Your task to perform on an android device: Clear the cart on bestbuy.com. Add "corsair k70" to the cart on bestbuy.com, then select checkout. Image 0: 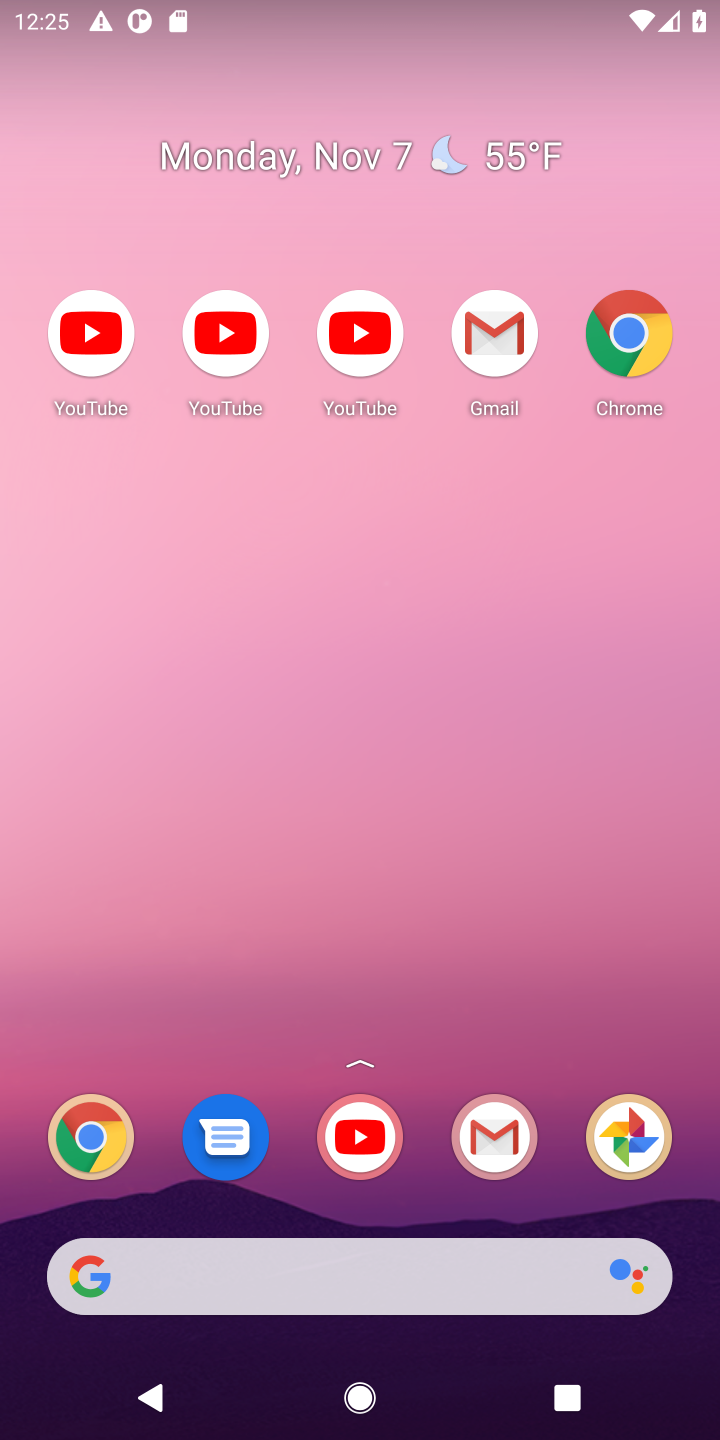
Step 0: drag from (104, 464) to (0, 203)
Your task to perform on an android device: Clear the cart on bestbuy.com. Add "corsair k70" to the cart on bestbuy.com, then select checkout. Image 1: 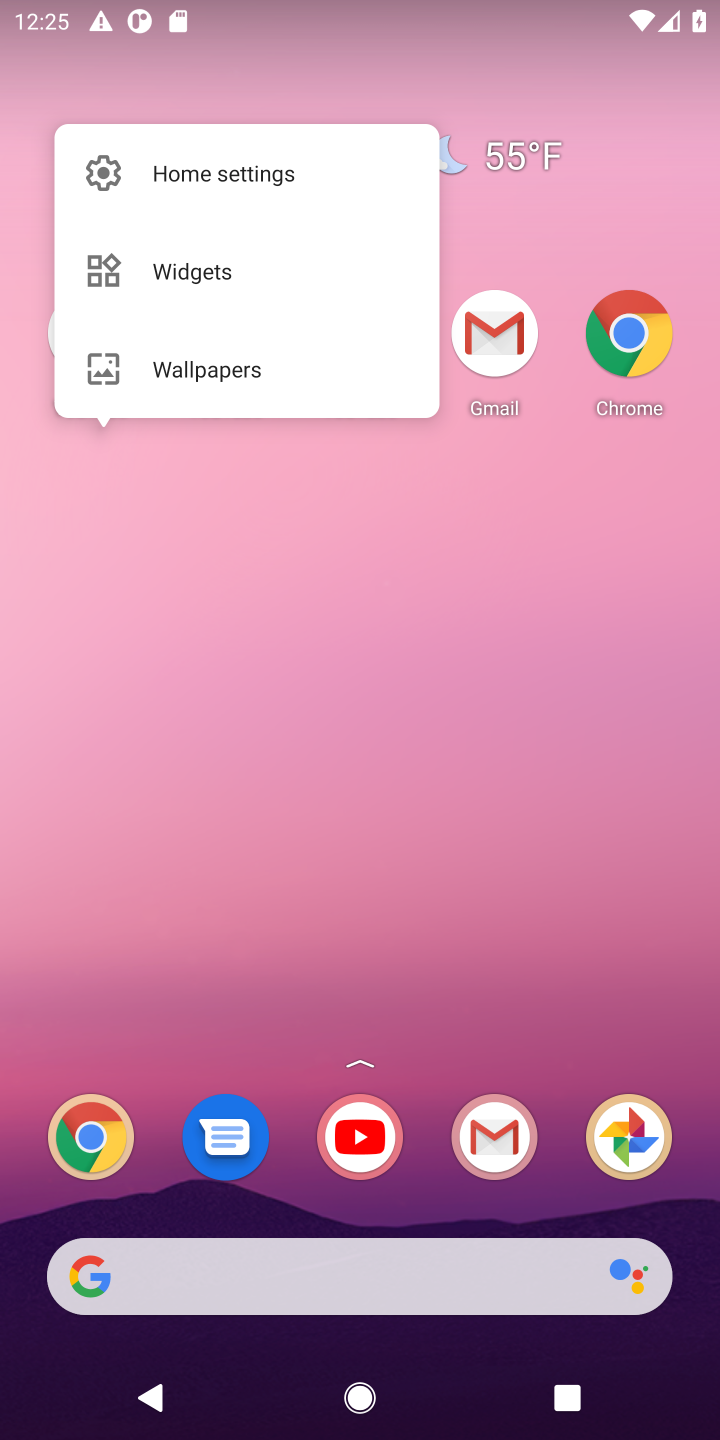
Step 1: click (436, 1188)
Your task to perform on an android device: Clear the cart on bestbuy.com. Add "corsair k70" to the cart on bestbuy.com, then select checkout. Image 2: 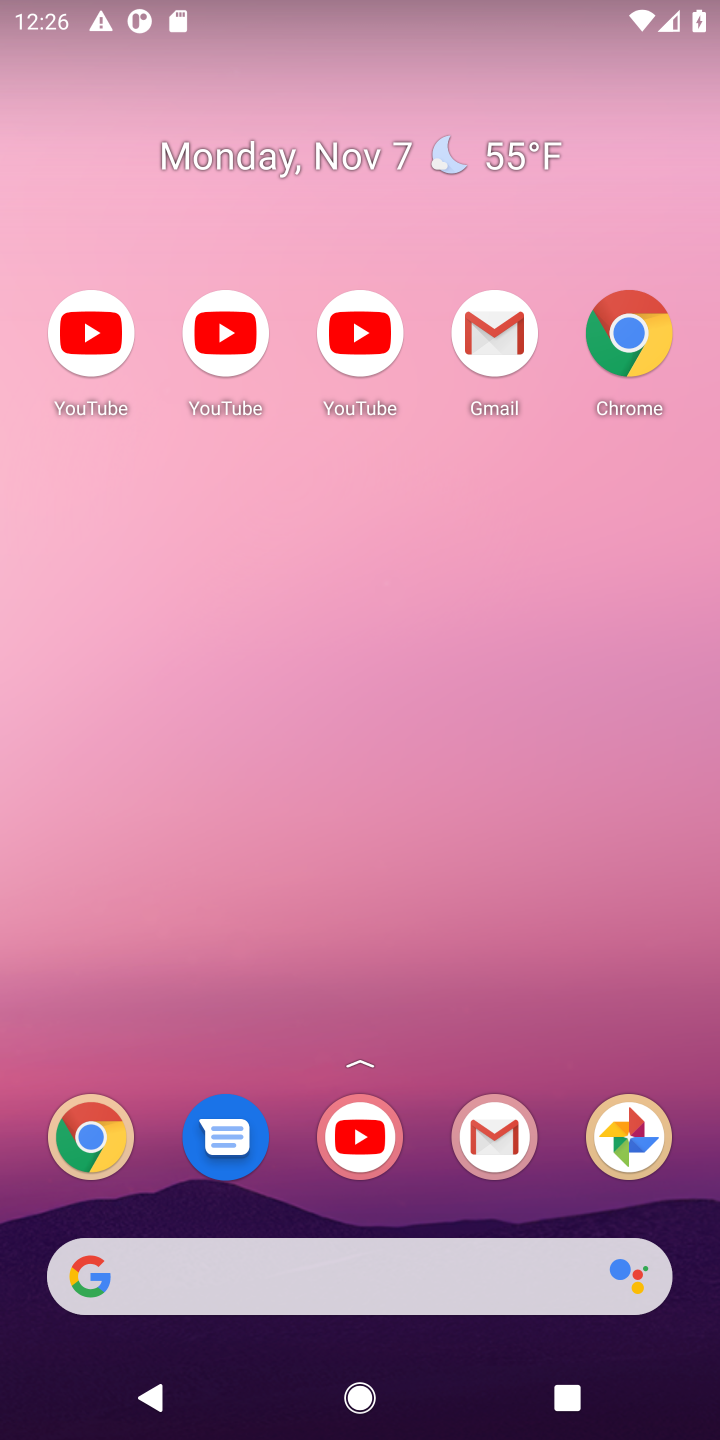
Step 2: drag from (433, 1232) to (414, 328)
Your task to perform on an android device: Clear the cart on bestbuy.com. Add "corsair k70" to the cart on bestbuy.com, then select checkout. Image 3: 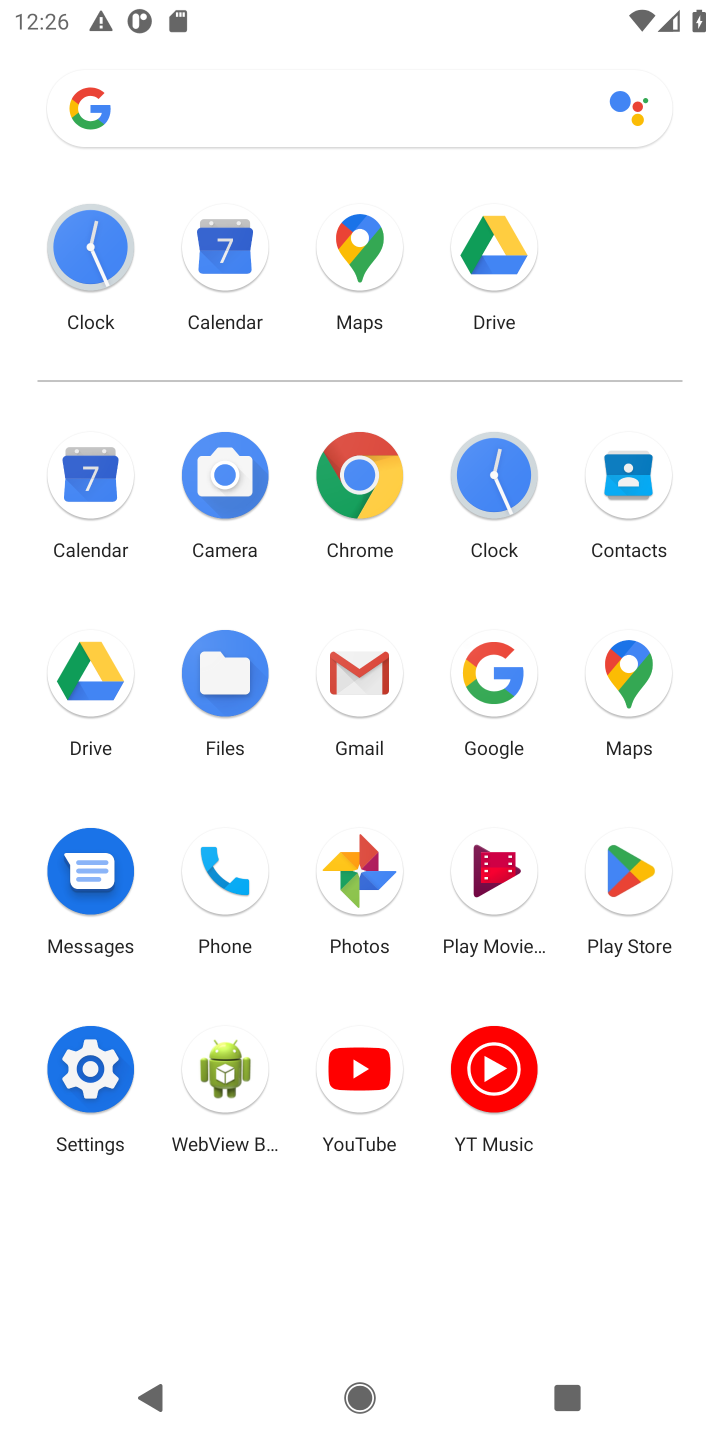
Step 3: click (355, 480)
Your task to perform on an android device: Clear the cart on bestbuy.com. Add "corsair k70" to the cart on bestbuy.com, then select checkout. Image 4: 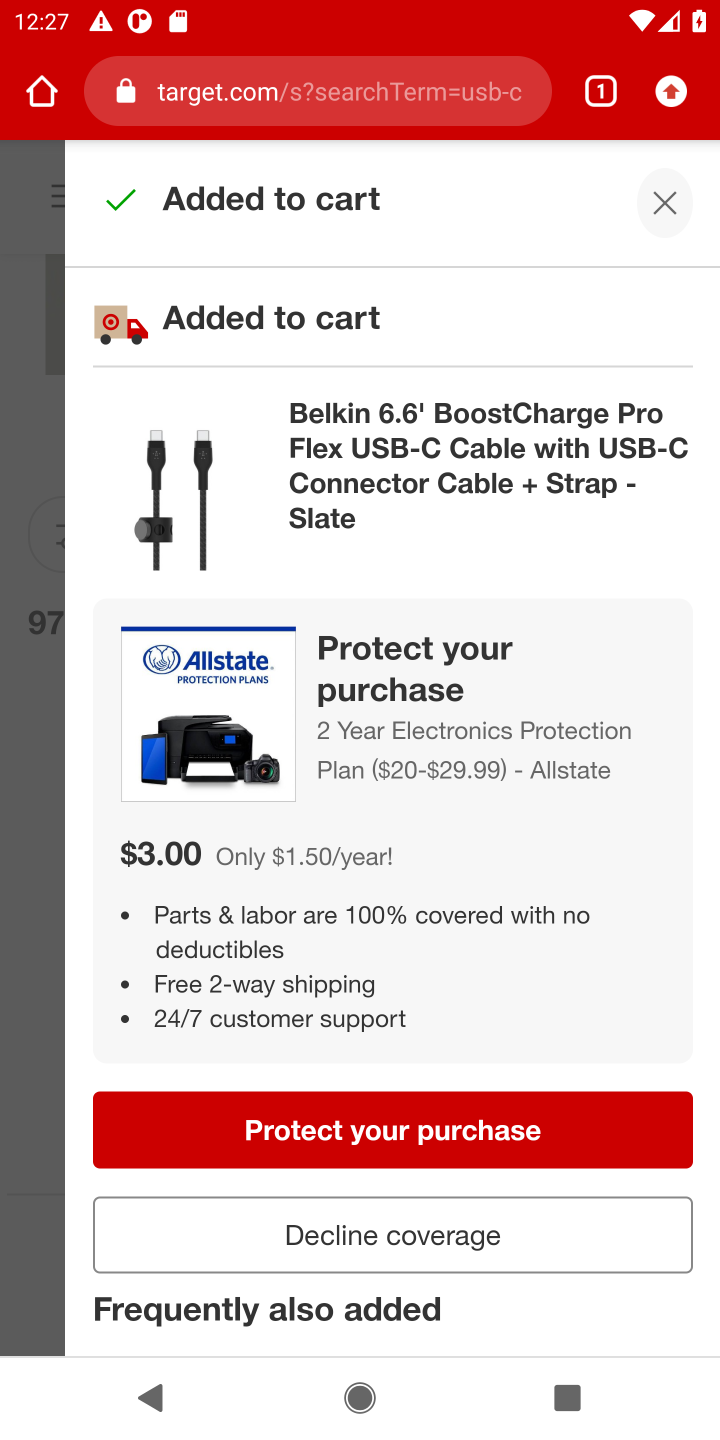
Step 4: click (435, 77)
Your task to perform on an android device: Clear the cart on bestbuy.com. Add "corsair k70" to the cart on bestbuy.com, then select checkout. Image 5: 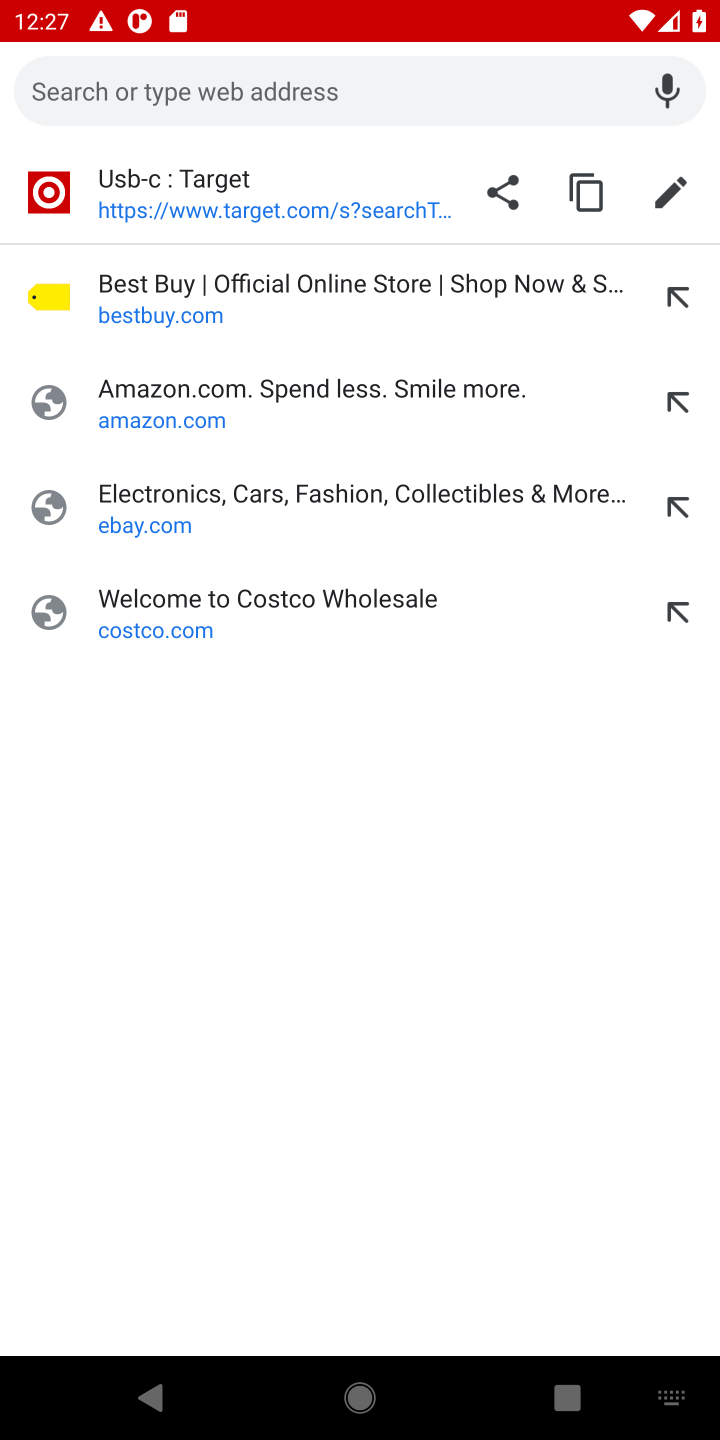
Step 5: type "bestbuy.com"
Your task to perform on an android device: Clear the cart on bestbuy.com. Add "corsair k70" to the cart on bestbuy.com, then select checkout. Image 6: 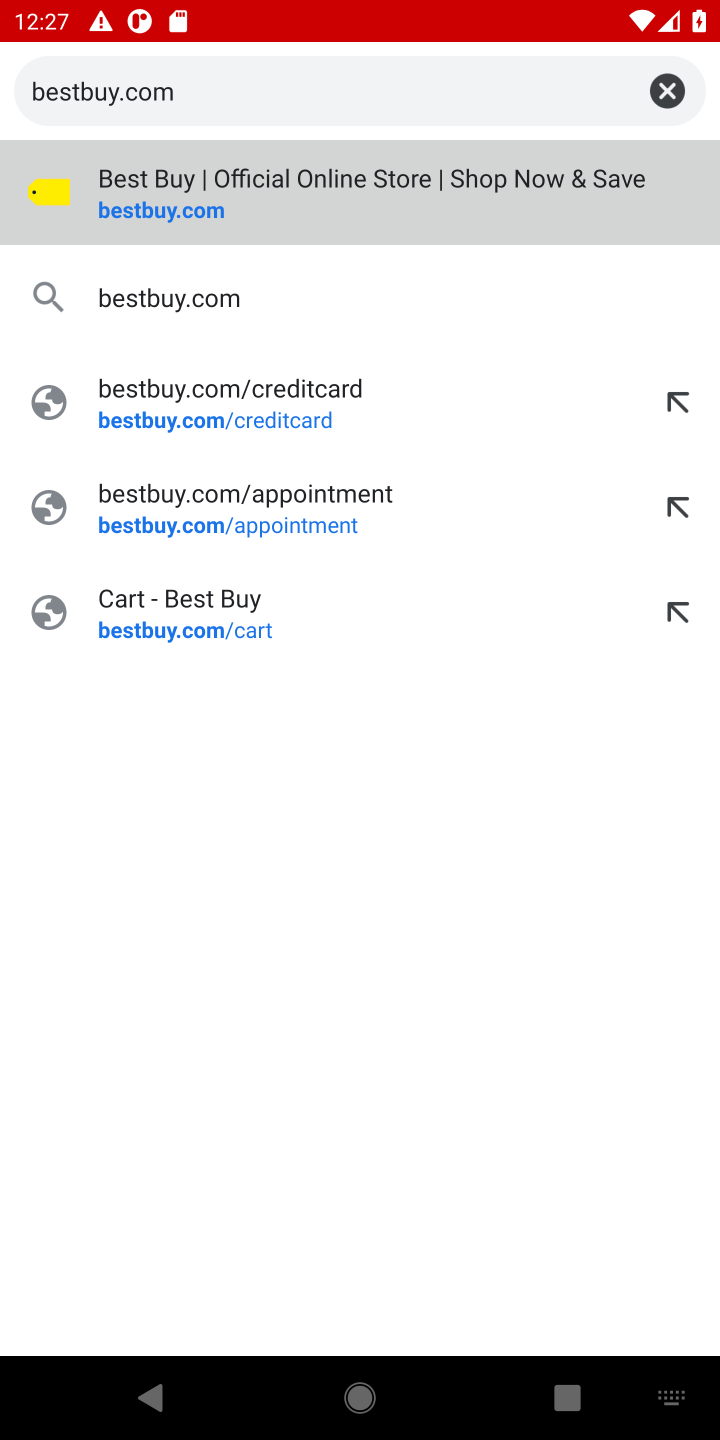
Step 6: press enter
Your task to perform on an android device: Clear the cart on bestbuy.com. Add "corsair k70" to the cart on bestbuy.com, then select checkout. Image 7: 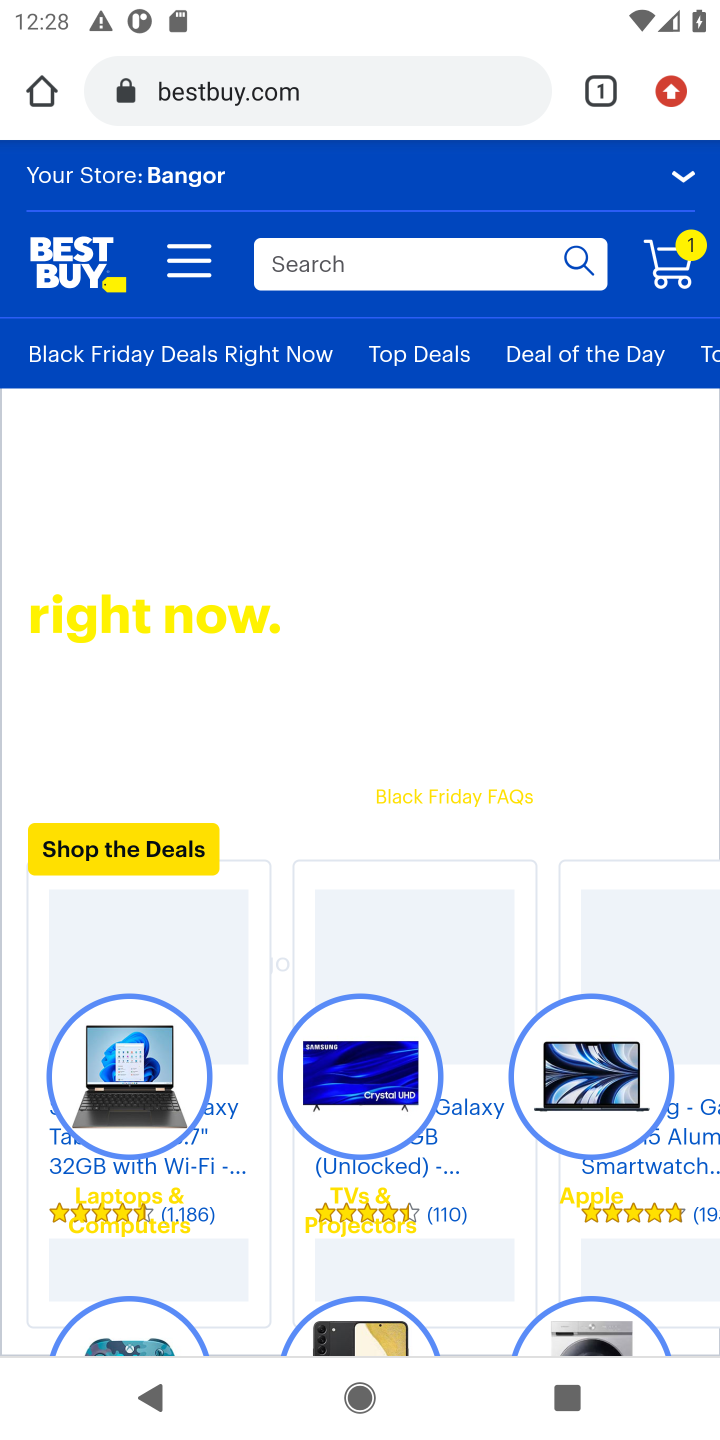
Step 7: click (671, 256)
Your task to perform on an android device: Clear the cart on bestbuy.com. Add "corsair k70" to the cart on bestbuy.com, then select checkout. Image 8: 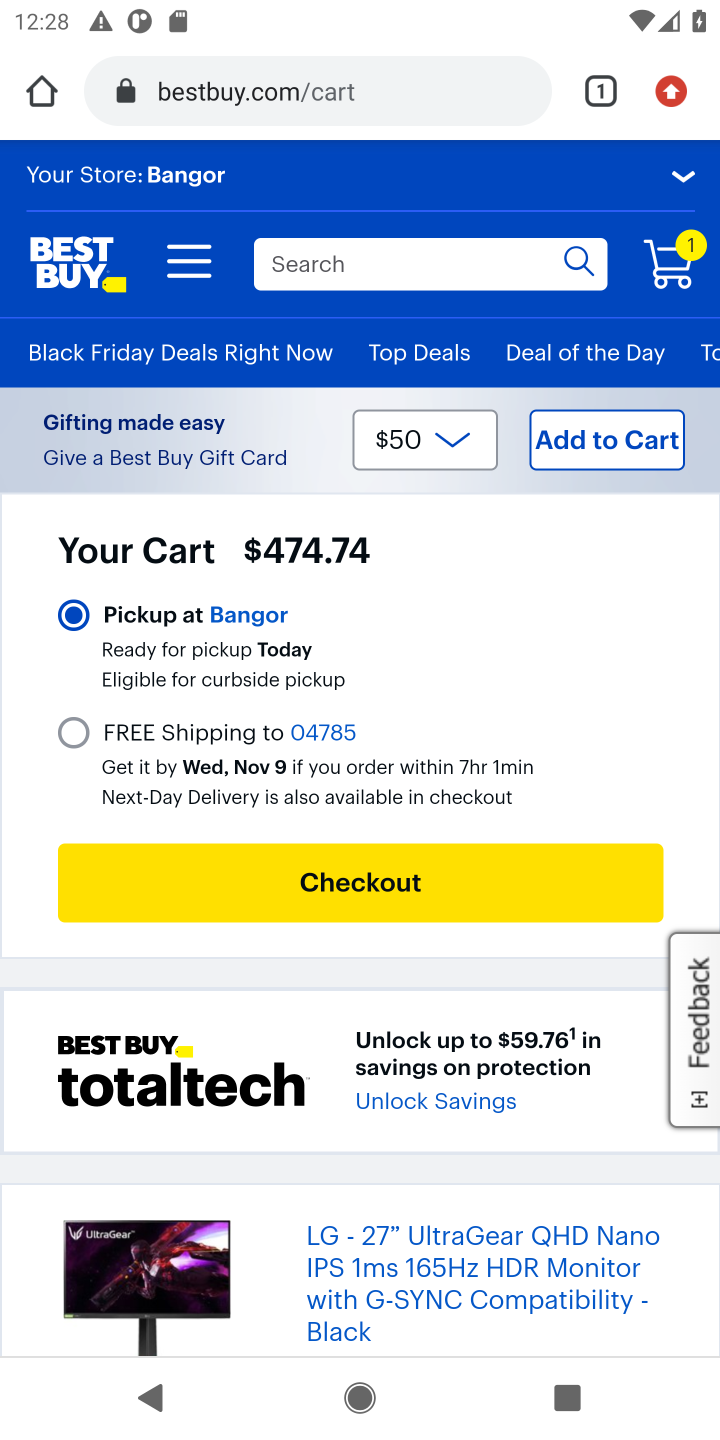
Step 8: drag from (473, 1158) to (512, 708)
Your task to perform on an android device: Clear the cart on bestbuy.com. Add "corsair k70" to the cart on bestbuy.com, then select checkout. Image 9: 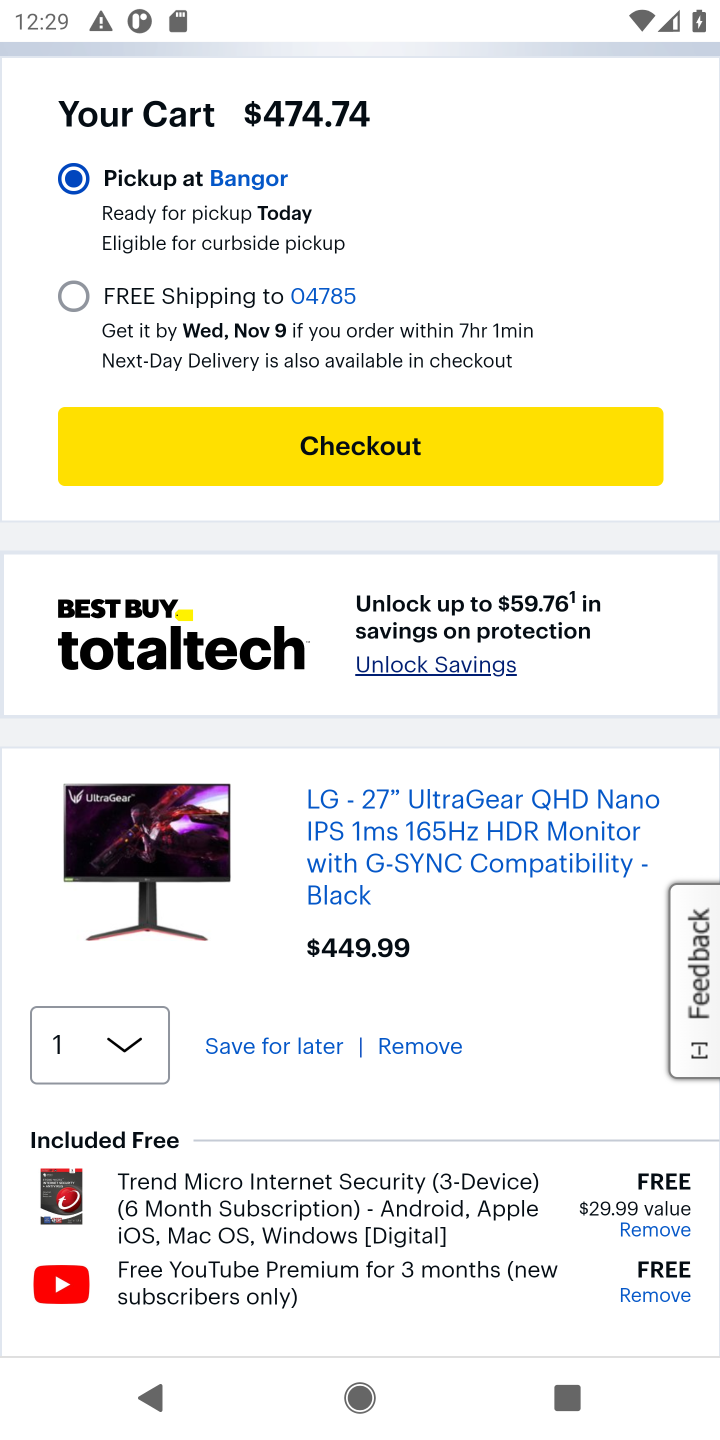
Step 9: click (418, 1041)
Your task to perform on an android device: Clear the cart on bestbuy.com. Add "corsair k70" to the cart on bestbuy.com, then select checkout. Image 10: 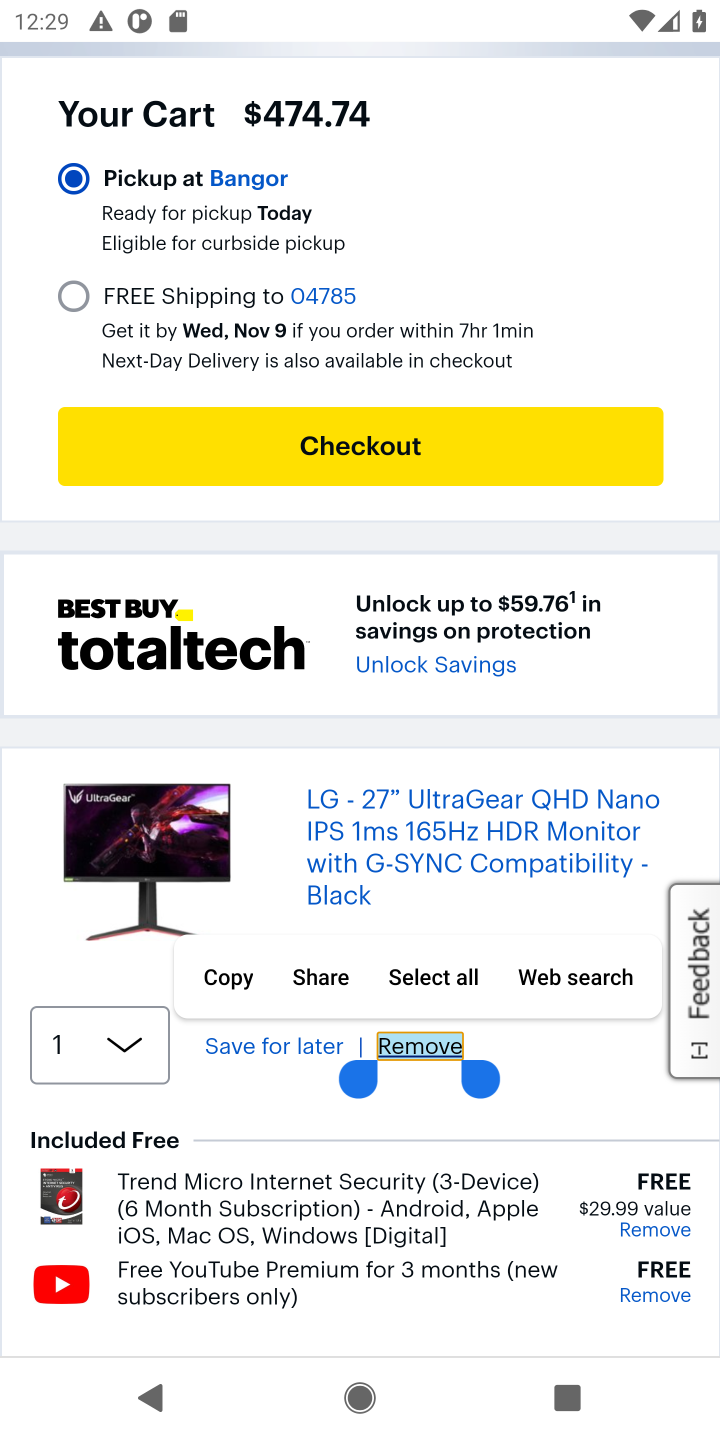
Step 10: click (427, 1047)
Your task to perform on an android device: Clear the cart on bestbuy.com. Add "corsair k70" to the cart on bestbuy.com, then select checkout. Image 11: 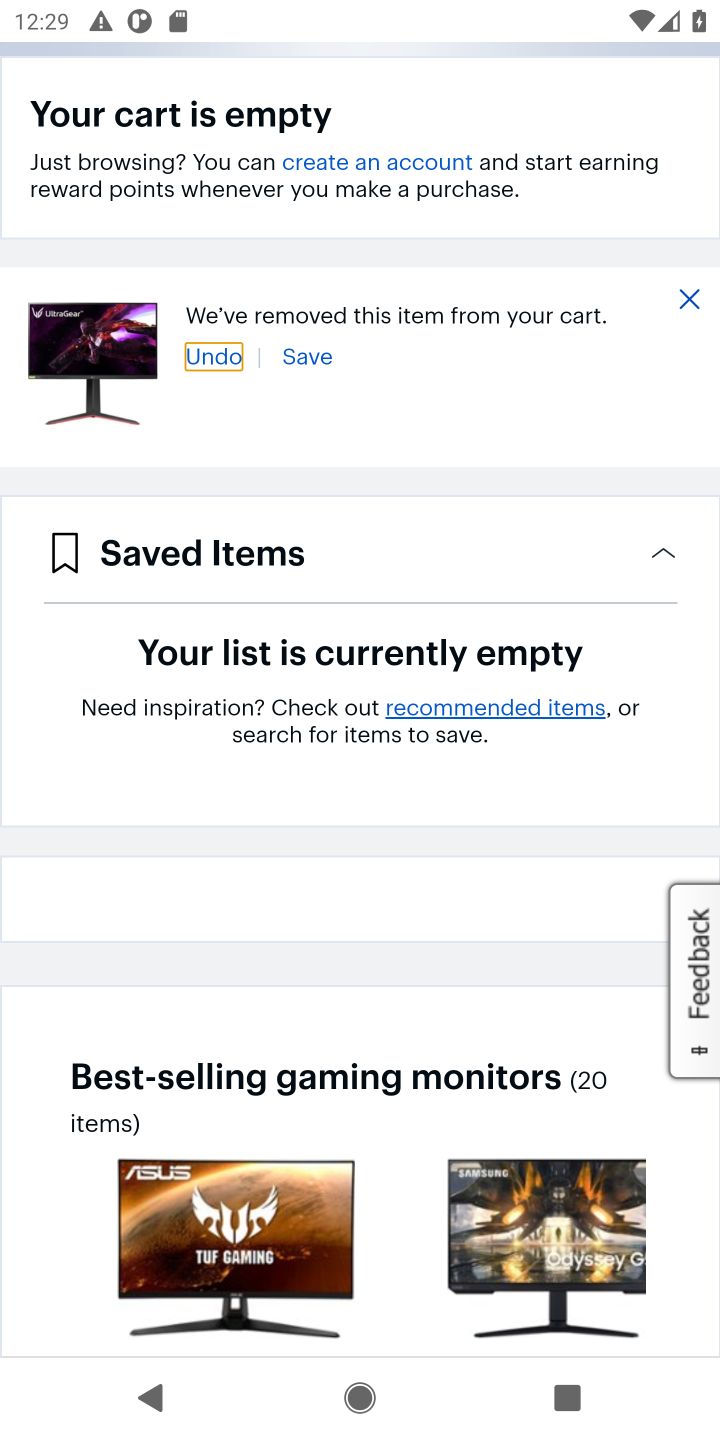
Step 11: drag from (477, 401) to (288, 934)
Your task to perform on an android device: Clear the cart on bestbuy.com. Add "corsair k70" to the cart on bestbuy.com, then select checkout. Image 12: 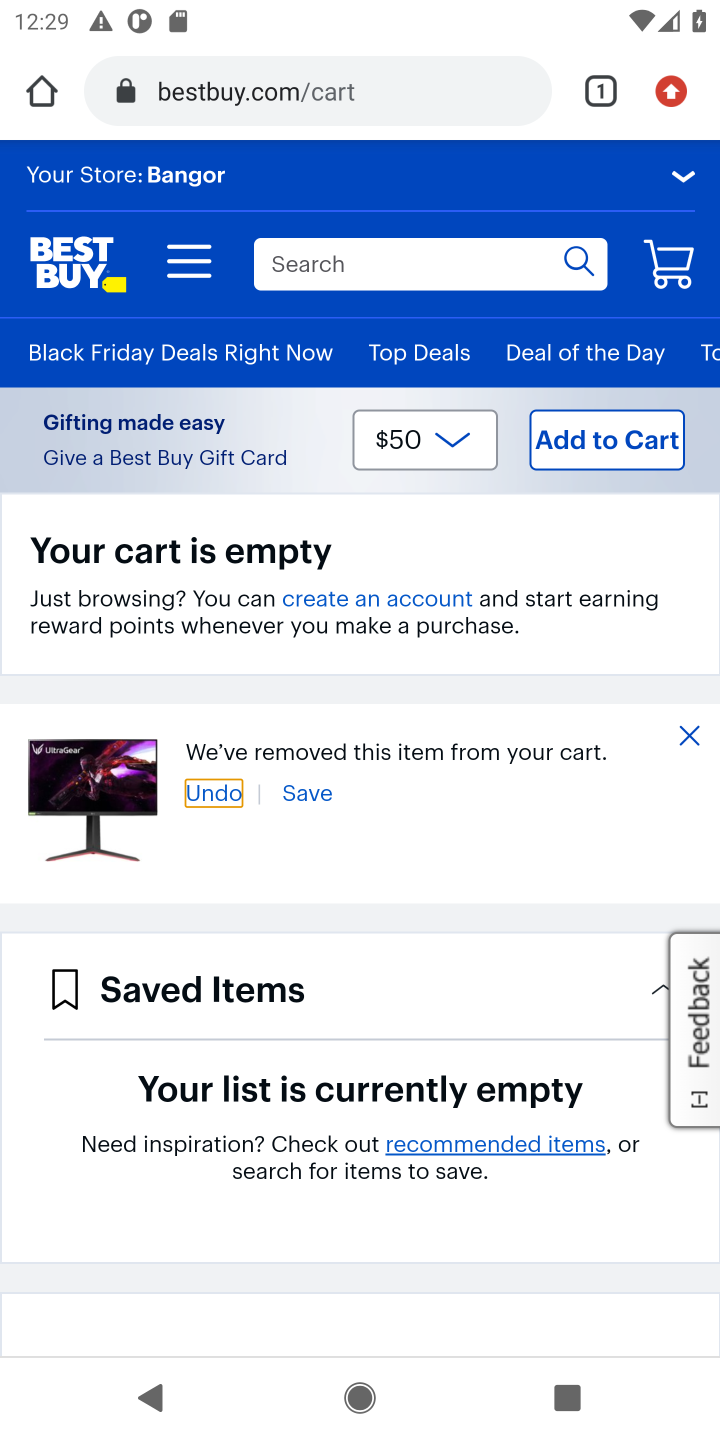
Step 12: click (394, 253)
Your task to perform on an android device: Clear the cart on bestbuy.com. Add "corsair k70" to the cart on bestbuy.com, then select checkout. Image 13: 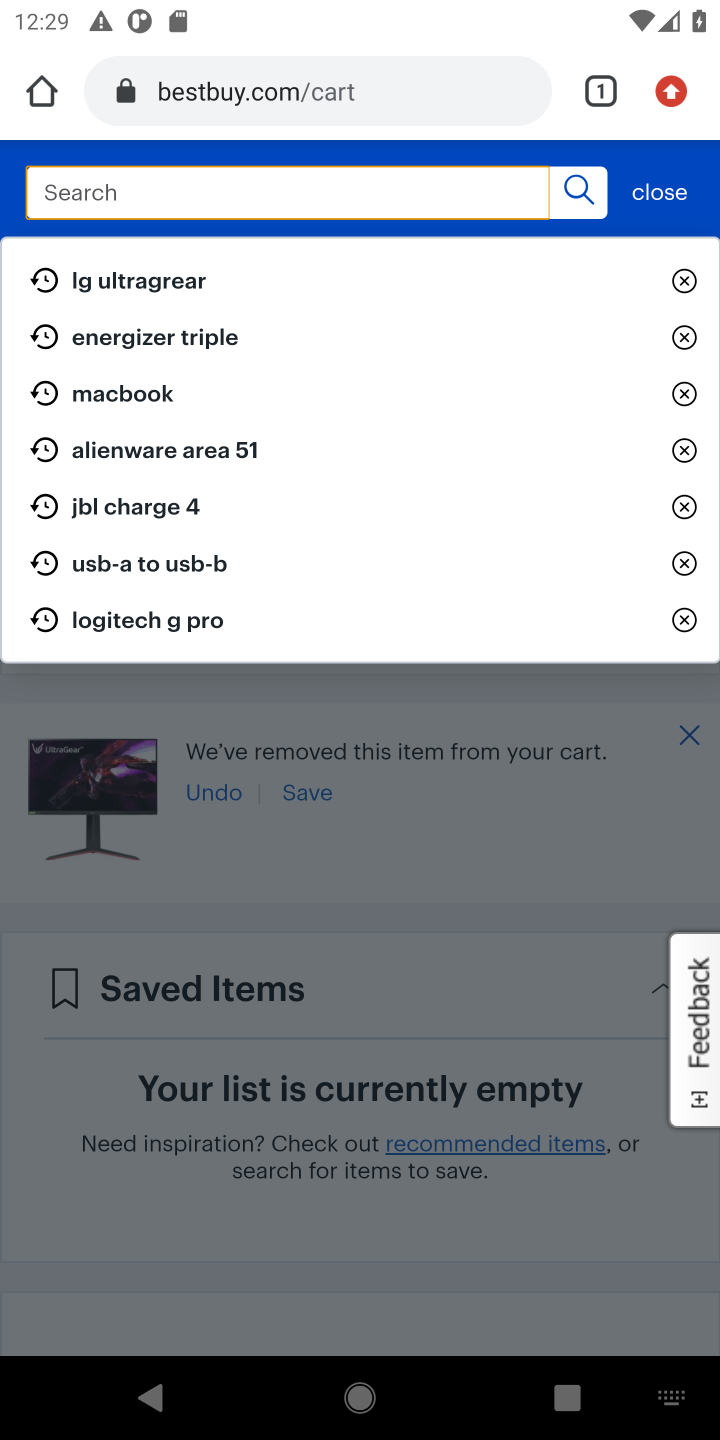
Step 13: type "corsair k70"
Your task to perform on an android device: Clear the cart on bestbuy.com. Add "corsair k70" to the cart on bestbuy.com, then select checkout. Image 14: 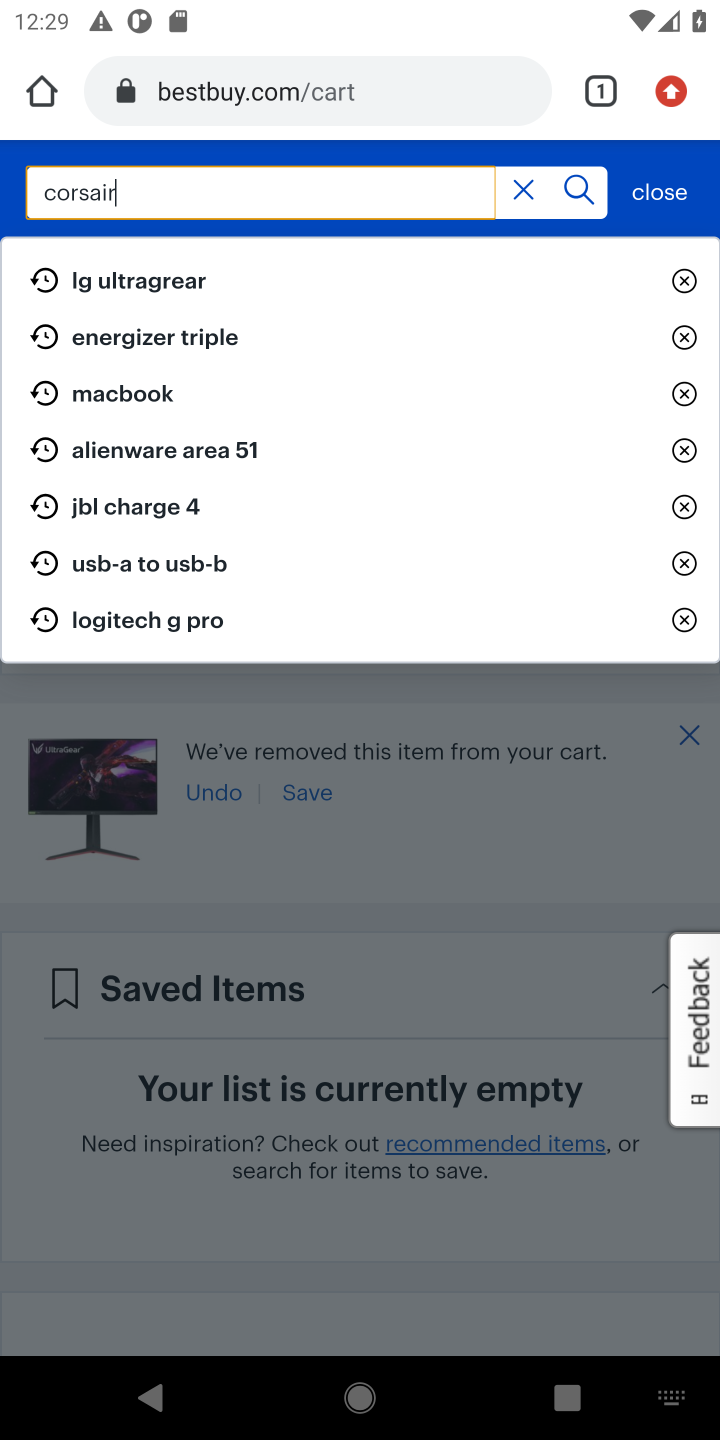
Step 14: press enter
Your task to perform on an android device: Clear the cart on bestbuy.com. Add "corsair k70" to the cart on bestbuy.com, then select checkout. Image 15: 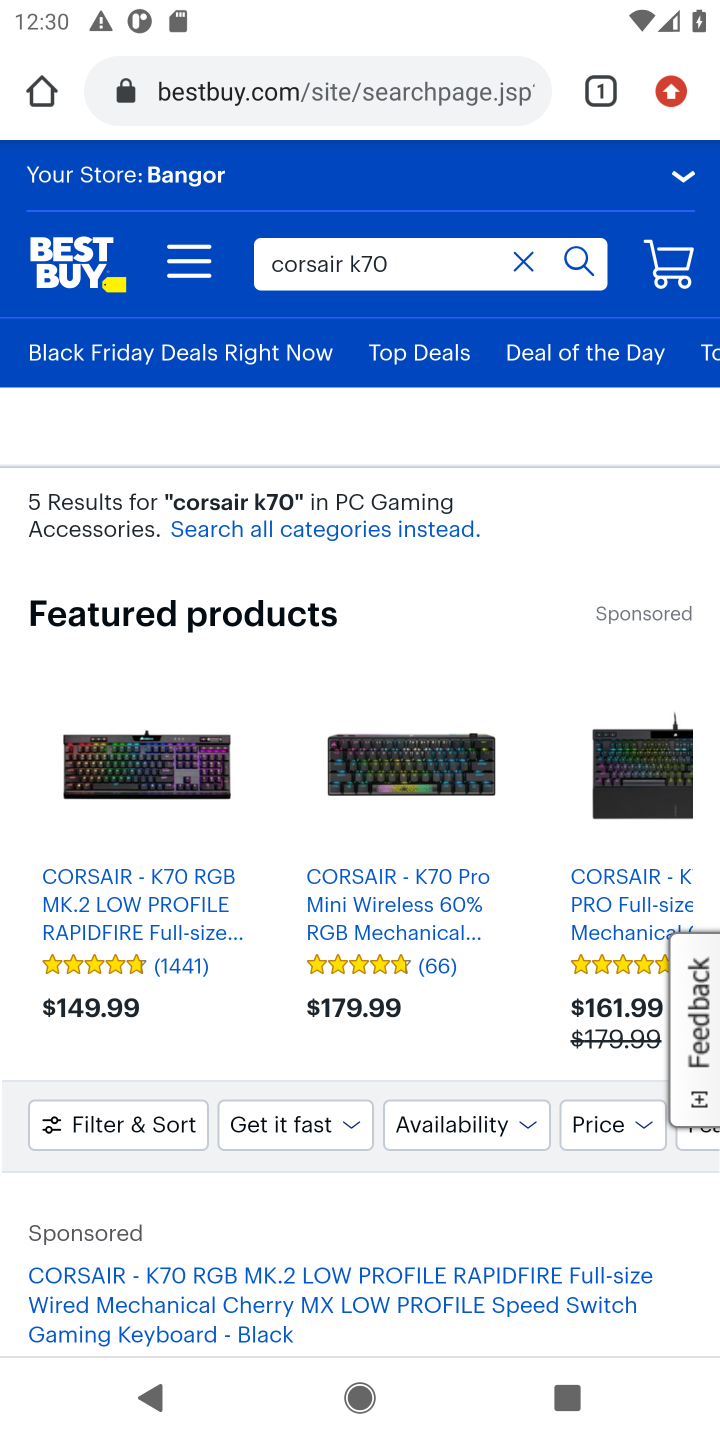
Step 15: drag from (415, 1271) to (571, 452)
Your task to perform on an android device: Clear the cart on bestbuy.com. Add "corsair k70" to the cart on bestbuy.com, then select checkout. Image 16: 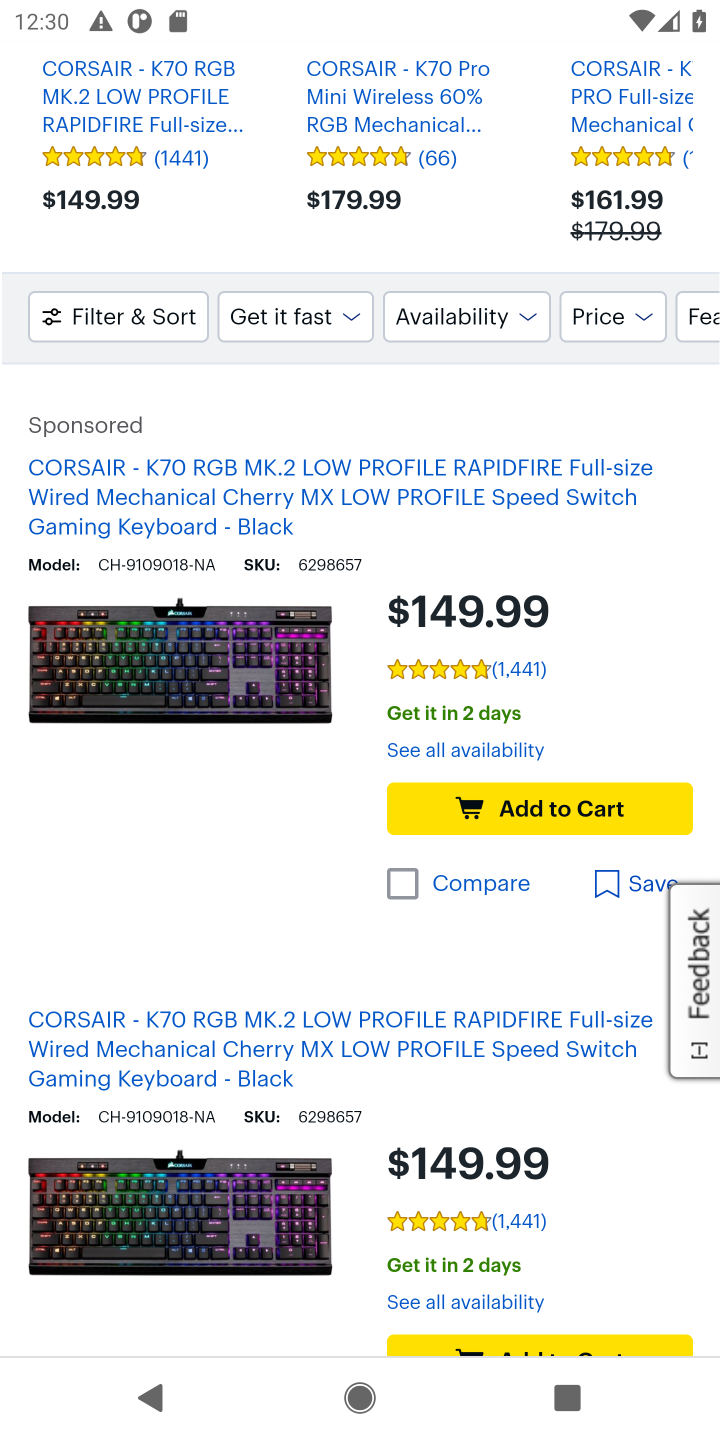
Step 16: drag from (370, 1073) to (396, 710)
Your task to perform on an android device: Clear the cart on bestbuy.com. Add "corsair k70" to the cart on bestbuy.com, then select checkout. Image 17: 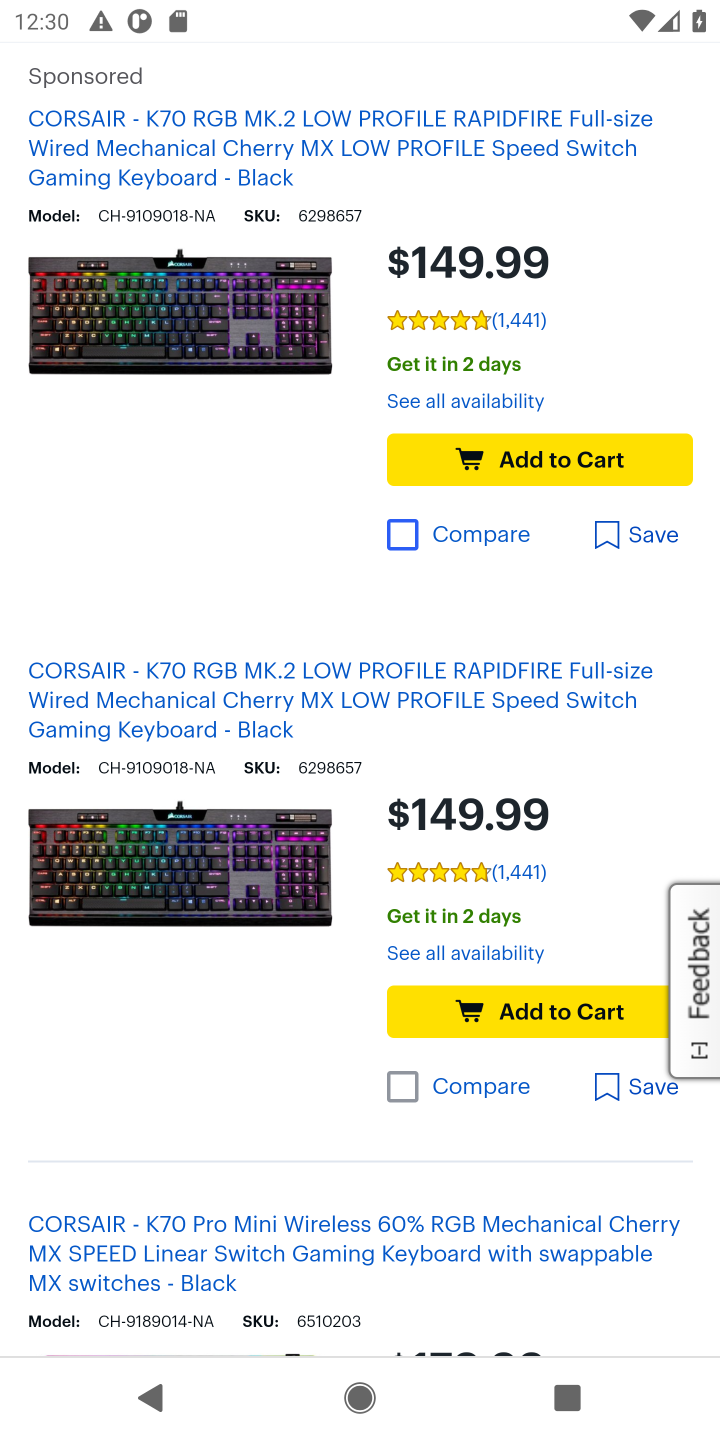
Step 17: click (516, 1015)
Your task to perform on an android device: Clear the cart on bestbuy.com. Add "corsair k70" to the cart on bestbuy.com, then select checkout. Image 18: 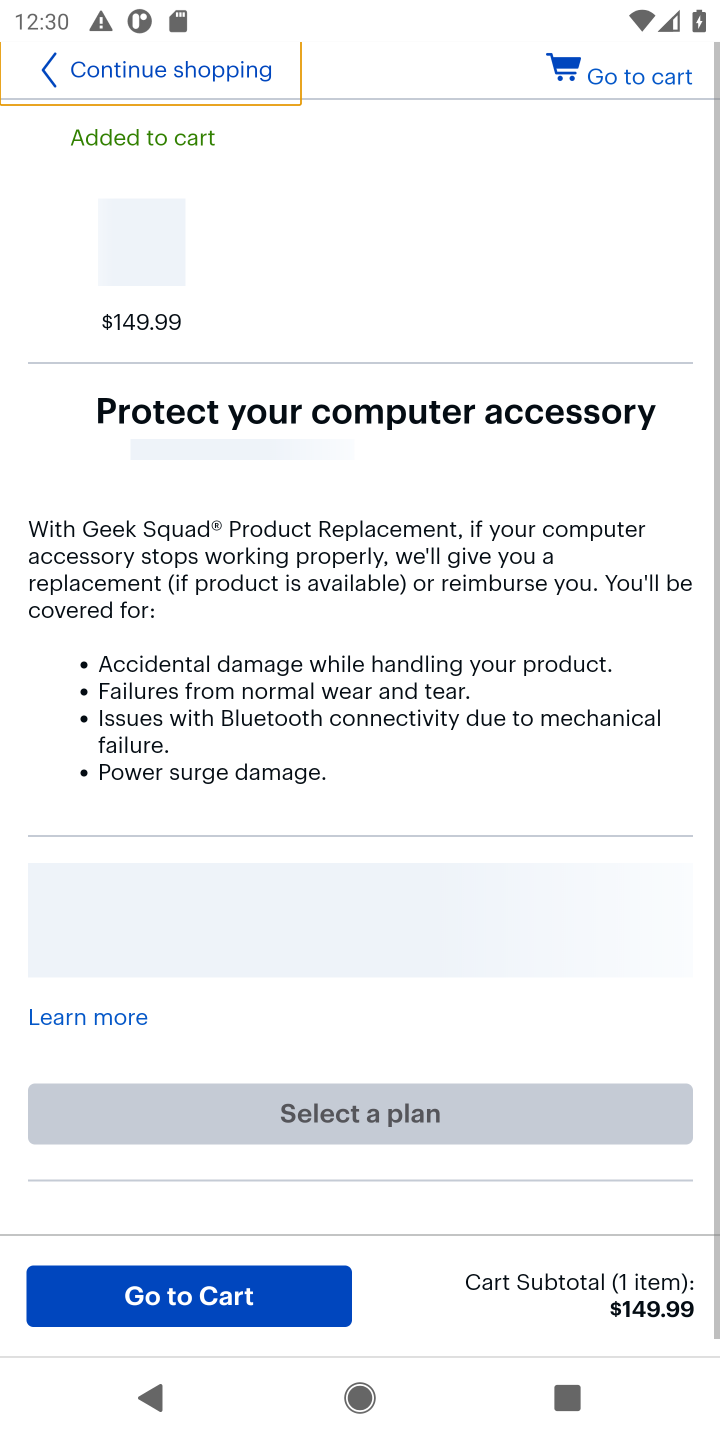
Step 18: click (273, 1294)
Your task to perform on an android device: Clear the cart on bestbuy.com. Add "corsair k70" to the cart on bestbuy.com, then select checkout. Image 19: 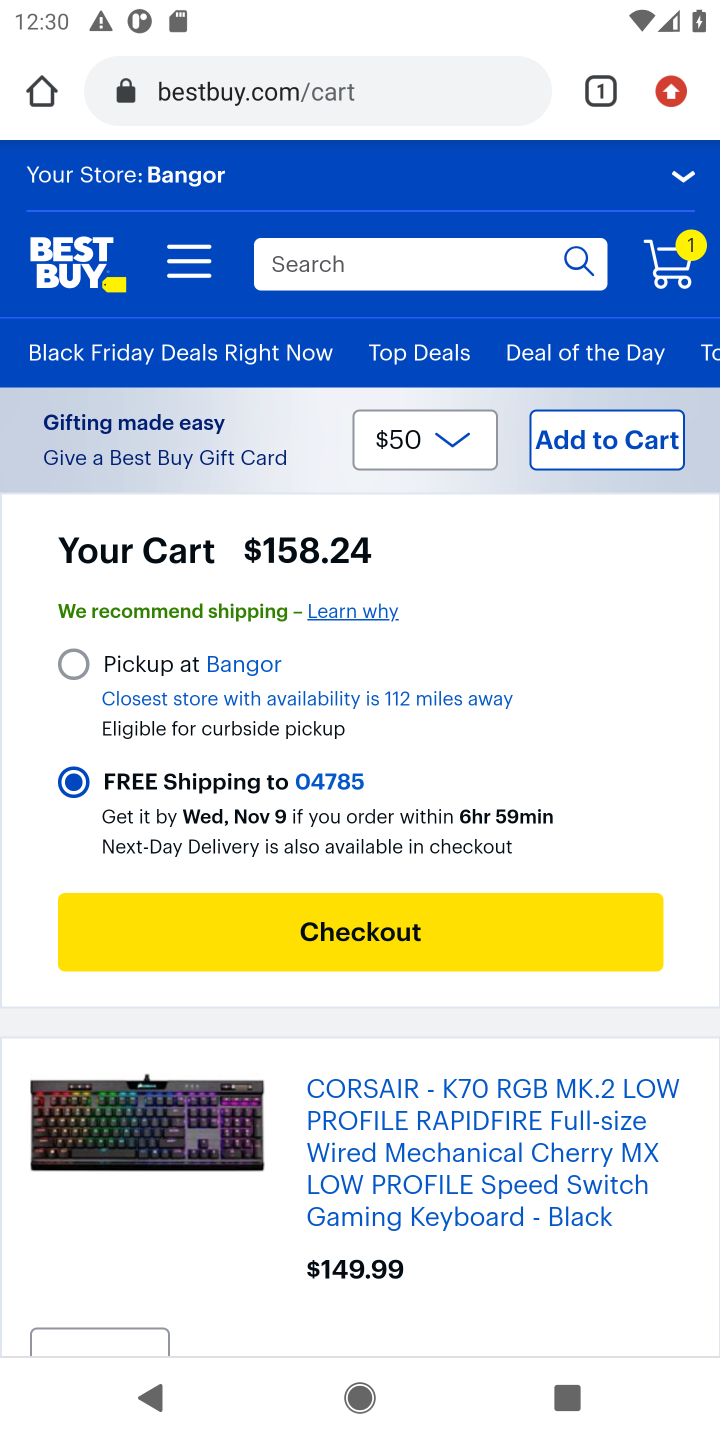
Step 19: click (346, 915)
Your task to perform on an android device: Clear the cart on bestbuy.com. Add "corsair k70" to the cart on bestbuy.com, then select checkout. Image 20: 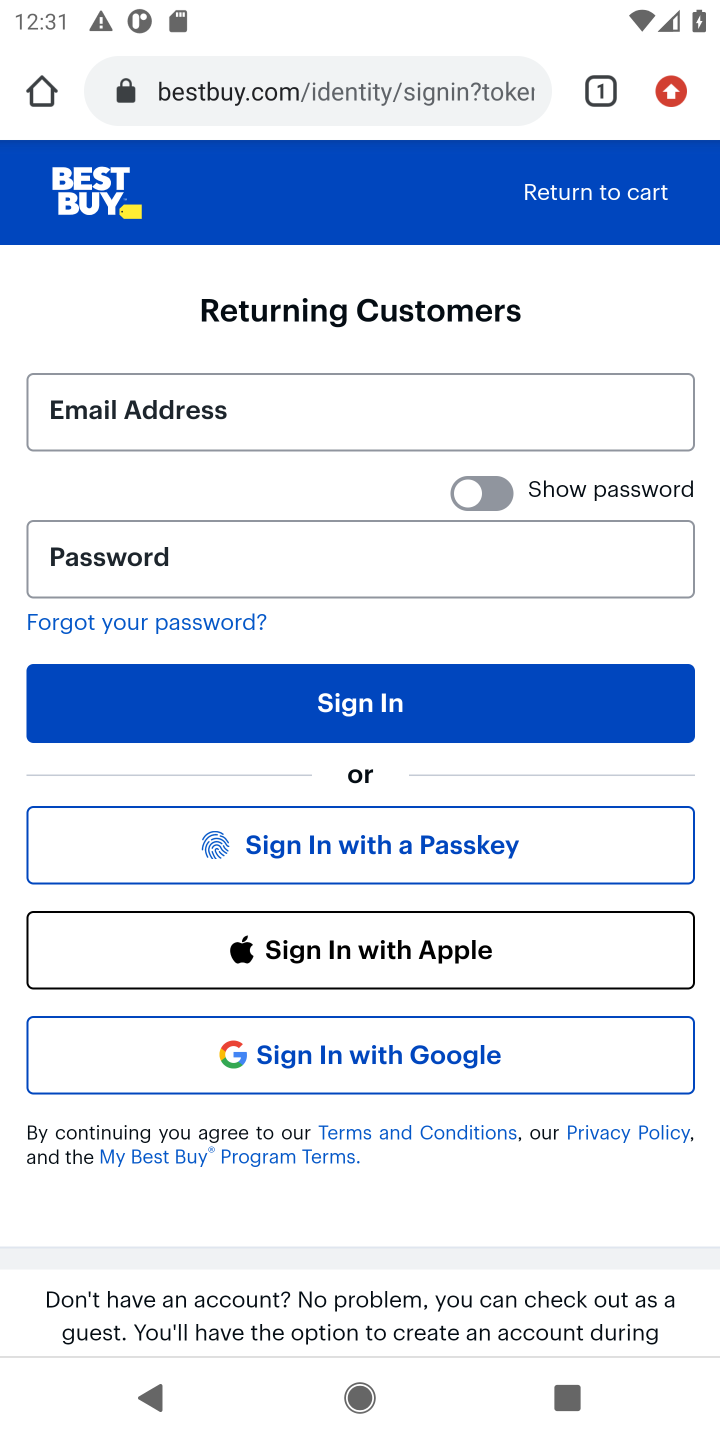
Step 20: task complete